Your task to perform on an android device: Open network settings Image 0: 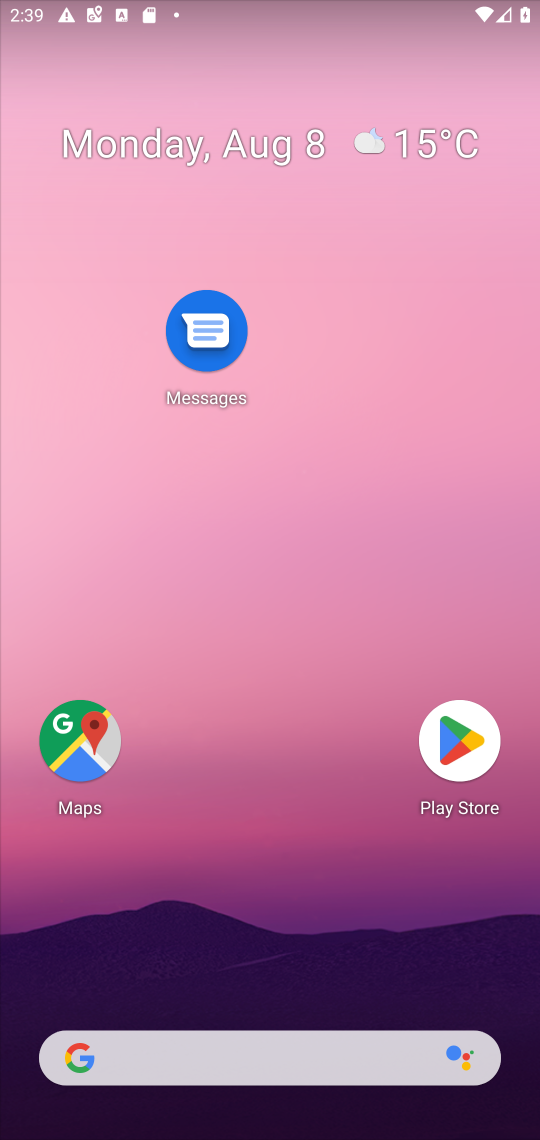
Step 0: drag from (391, 1036) to (497, 228)
Your task to perform on an android device: Open network settings Image 1: 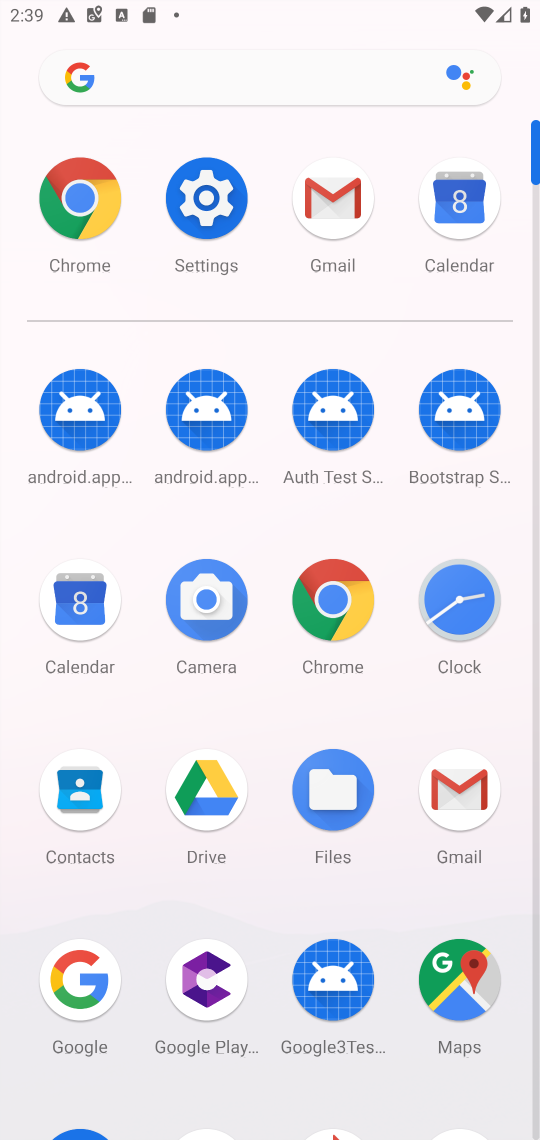
Step 1: click (219, 205)
Your task to perform on an android device: Open network settings Image 2: 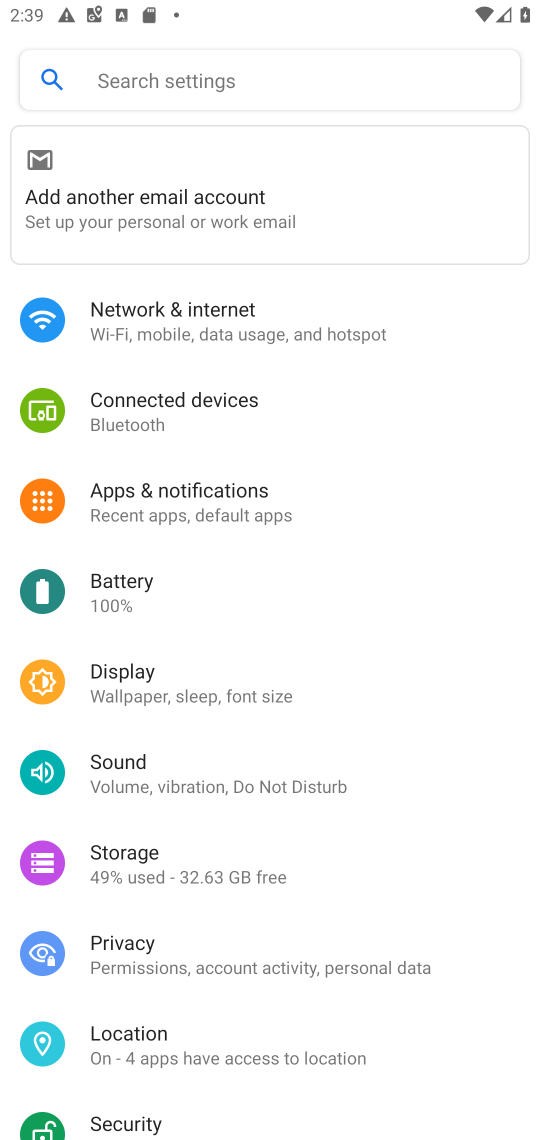
Step 2: click (189, 318)
Your task to perform on an android device: Open network settings Image 3: 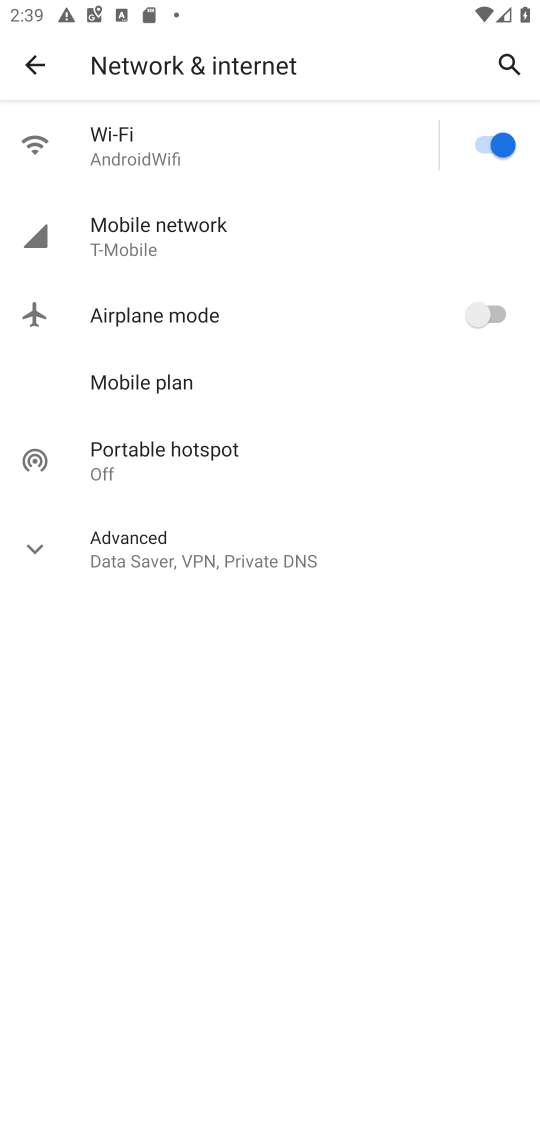
Step 3: task complete